Your task to perform on an android device: open the mobile data screen to see how much data has been used Image 0: 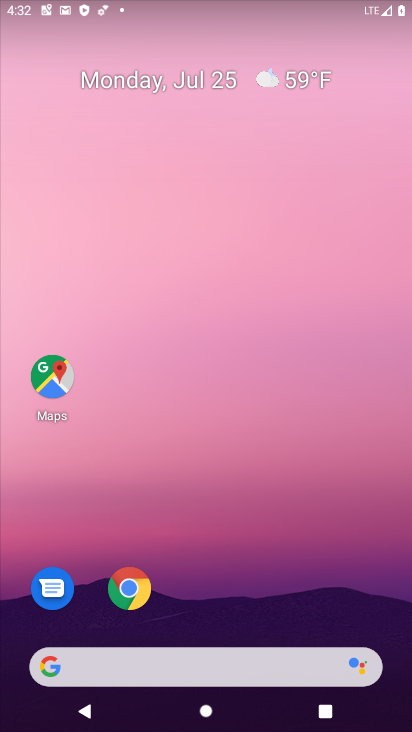
Step 0: drag from (332, 492) to (370, 93)
Your task to perform on an android device: open the mobile data screen to see how much data has been used Image 1: 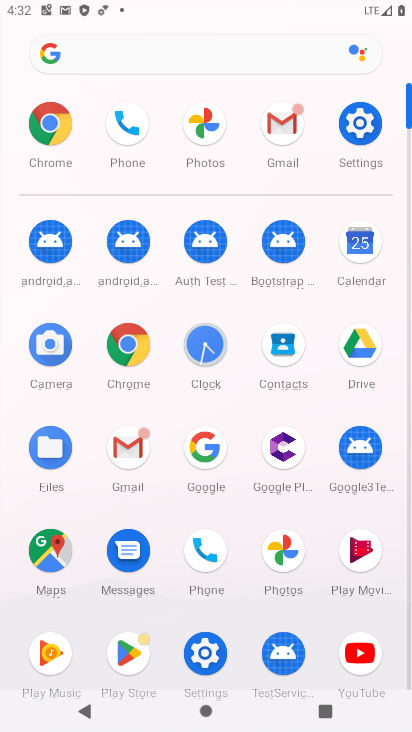
Step 1: drag from (312, 1) to (227, 611)
Your task to perform on an android device: open the mobile data screen to see how much data has been used Image 2: 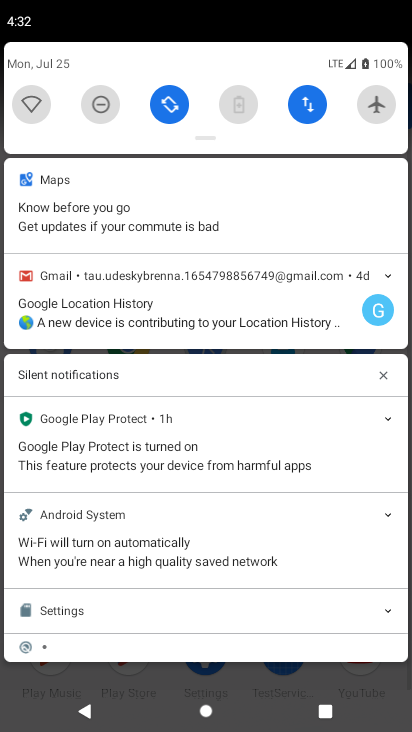
Step 2: click (302, 96)
Your task to perform on an android device: open the mobile data screen to see how much data has been used Image 3: 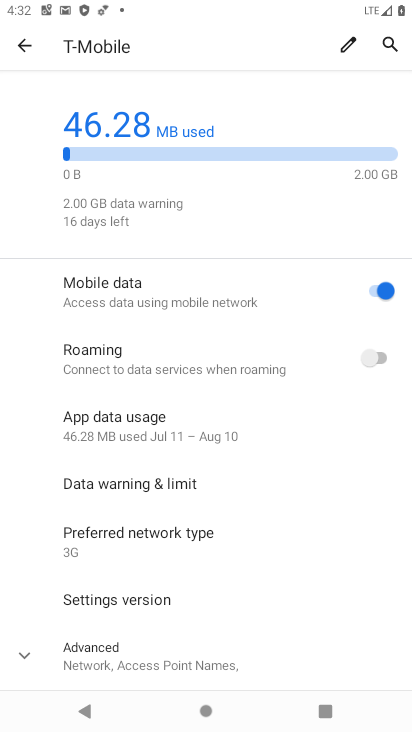
Step 3: task complete